Your task to perform on an android device: open chrome privacy settings Image 0: 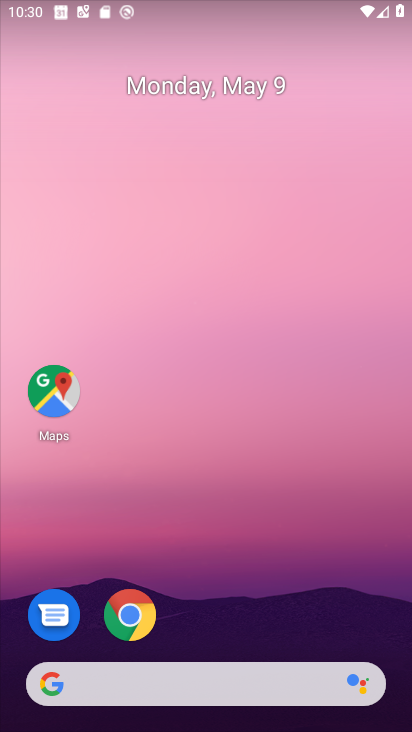
Step 0: drag from (212, 694) to (409, 192)
Your task to perform on an android device: open chrome privacy settings Image 1: 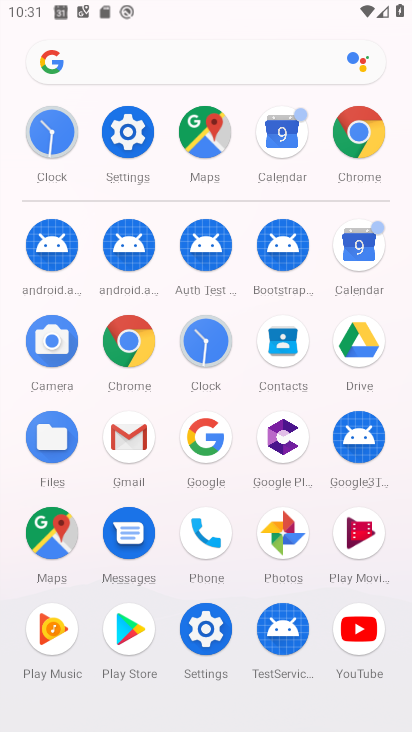
Step 1: click (139, 134)
Your task to perform on an android device: open chrome privacy settings Image 2: 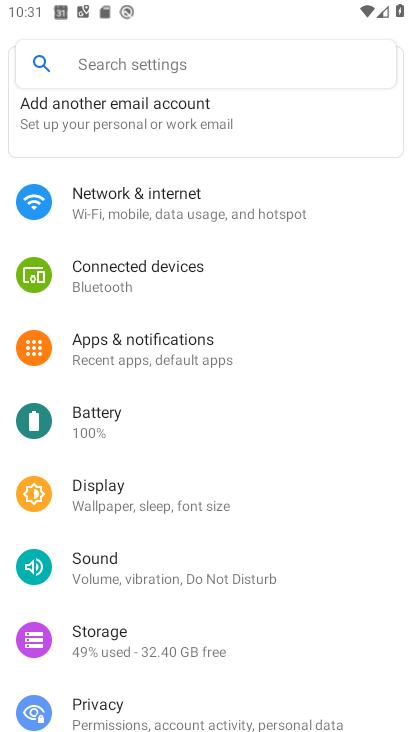
Step 2: press home button
Your task to perform on an android device: open chrome privacy settings Image 3: 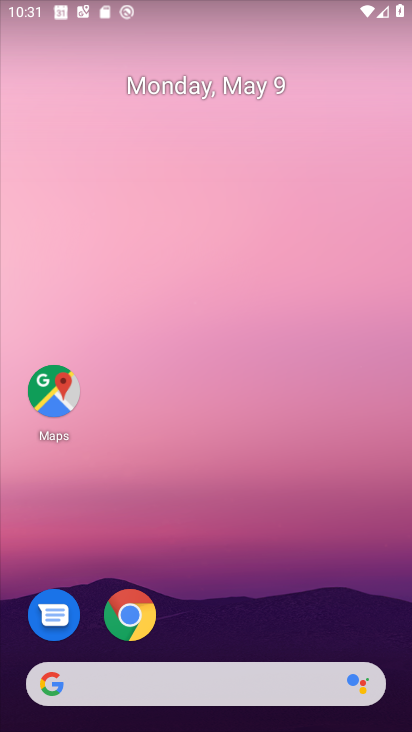
Step 3: click (138, 611)
Your task to perform on an android device: open chrome privacy settings Image 4: 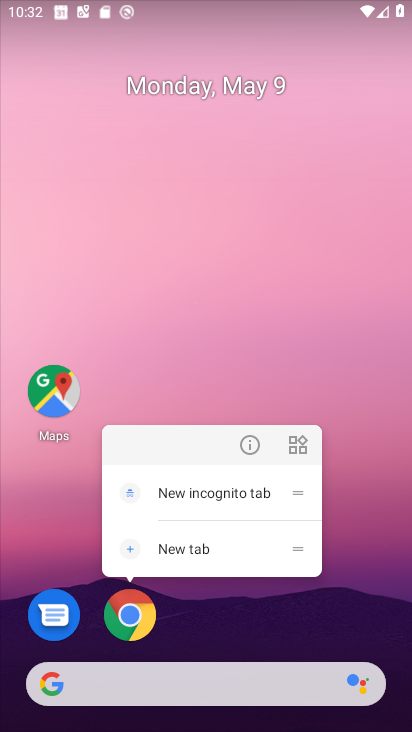
Step 4: drag from (296, 703) to (409, 246)
Your task to perform on an android device: open chrome privacy settings Image 5: 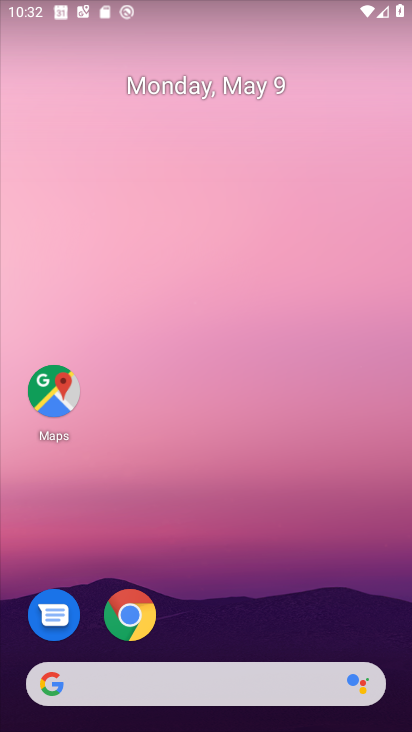
Step 5: drag from (130, 711) to (397, 31)
Your task to perform on an android device: open chrome privacy settings Image 6: 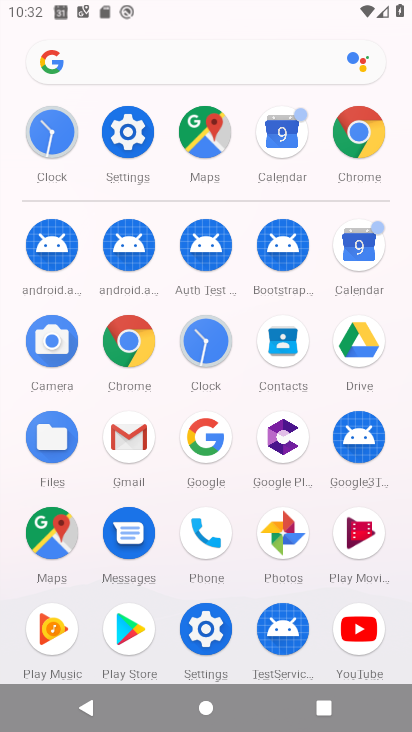
Step 6: click (375, 131)
Your task to perform on an android device: open chrome privacy settings Image 7: 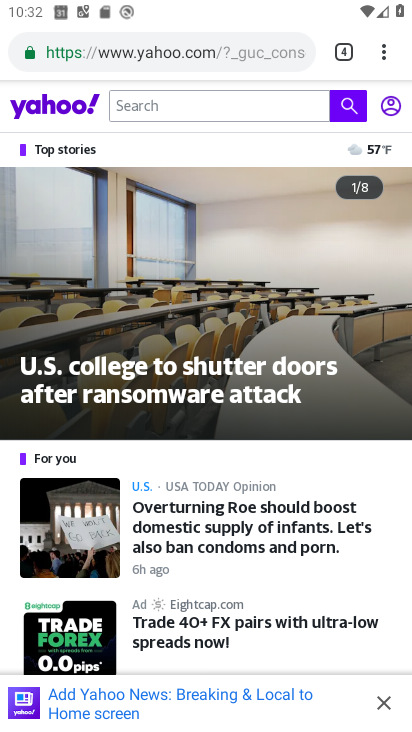
Step 7: click (378, 61)
Your task to perform on an android device: open chrome privacy settings Image 8: 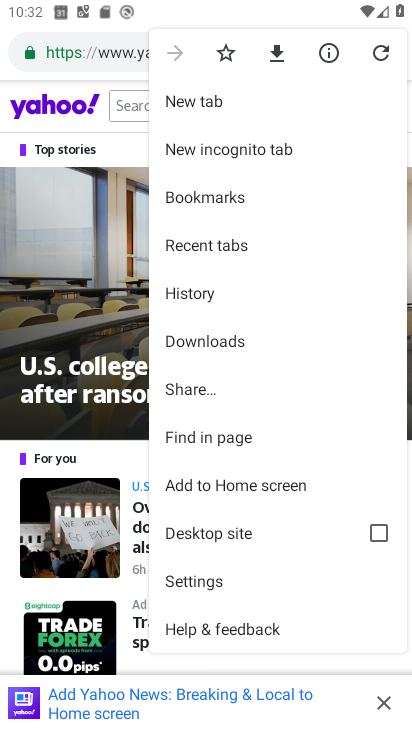
Step 8: click (209, 583)
Your task to perform on an android device: open chrome privacy settings Image 9: 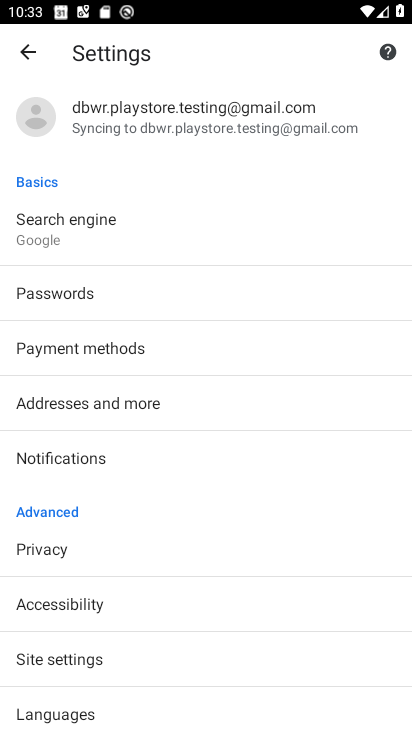
Step 9: click (68, 562)
Your task to perform on an android device: open chrome privacy settings Image 10: 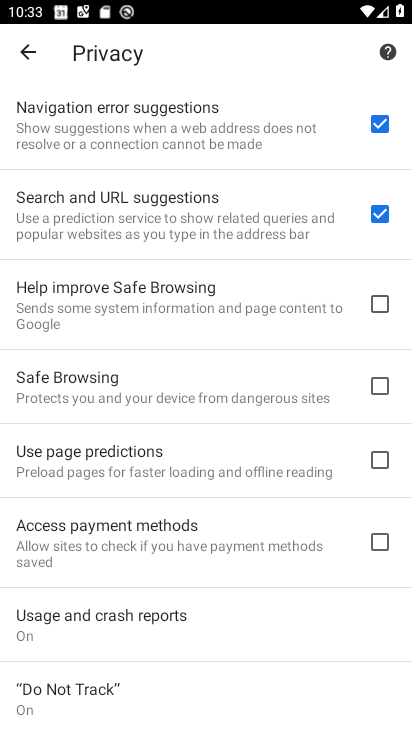
Step 10: task complete